Your task to perform on an android device: open wifi settings Image 0: 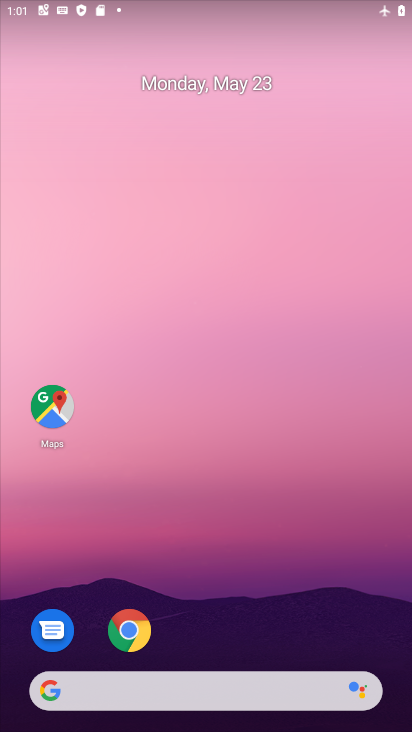
Step 0: drag from (378, 606) to (374, 199)
Your task to perform on an android device: open wifi settings Image 1: 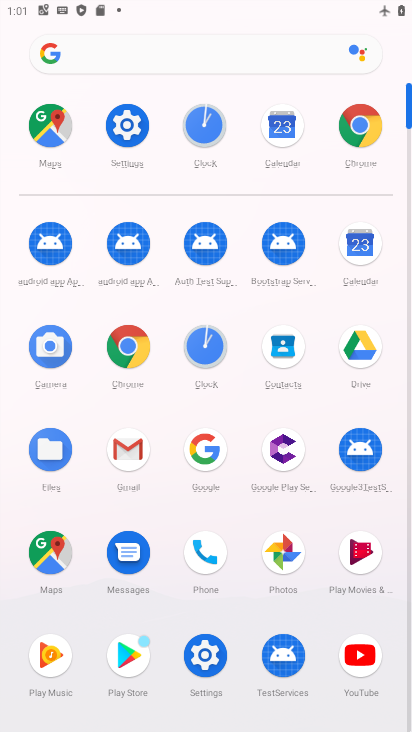
Step 1: click (211, 656)
Your task to perform on an android device: open wifi settings Image 2: 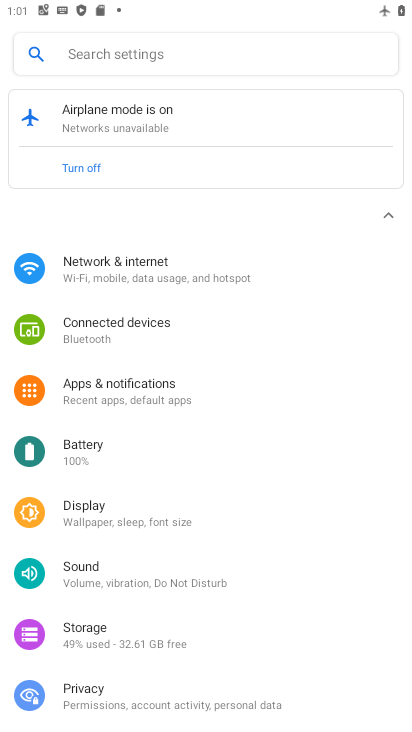
Step 2: click (181, 281)
Your task to perform on an android device: open wifi settings Image 3: 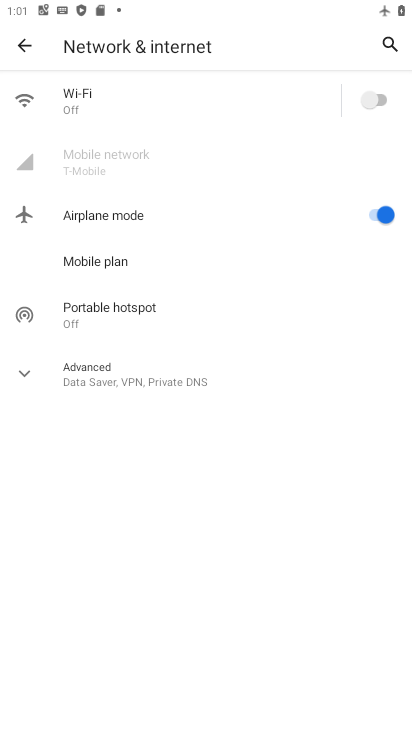
Step 3: click (278, 95)
Your task to perform on an android device: open wifi settings Image 4: 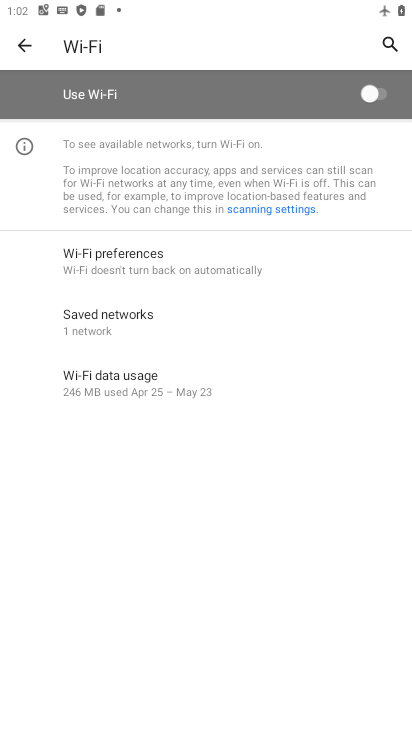
Step 4: task complete